Your task to perform on an android device: see sites visited before in the chrome app Image 0: 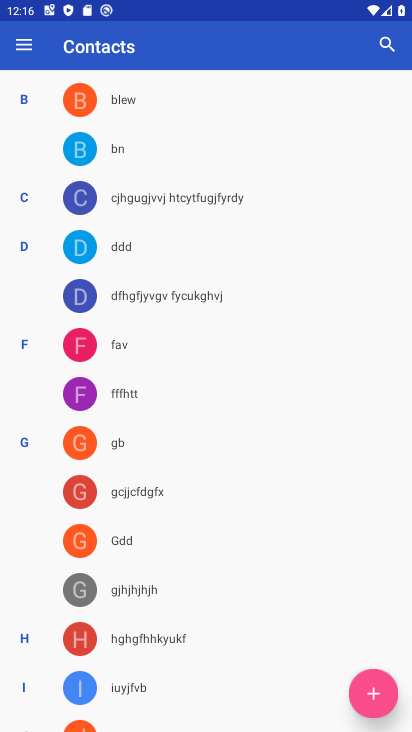
Step 0: press home button
Your task to perform on an android device: see sites visited before in the chrome app Image 1: 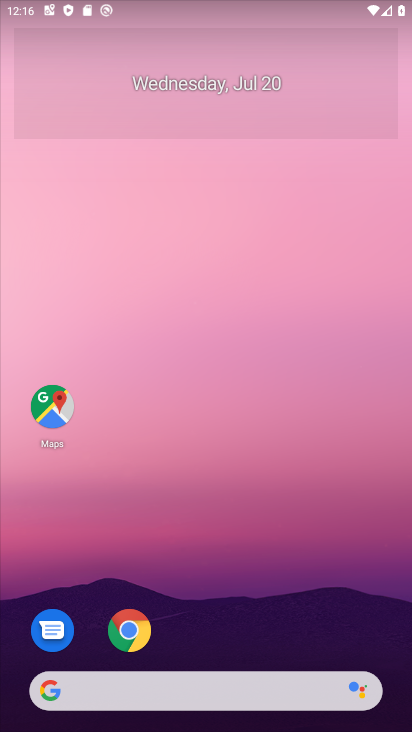
Step 1: click (130, 634)
Your task to perform on an android device: see sites visited before in the chrome app Image 2: 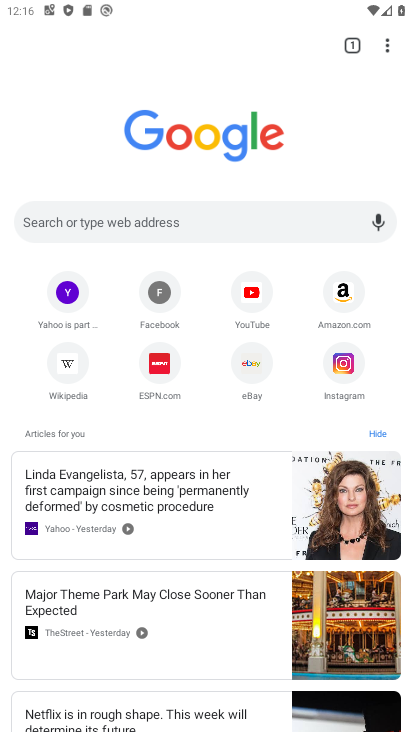
Step 2: click (385, 48)
Your task to perform on an android device: see sites visited before in the chrome app Image 3: 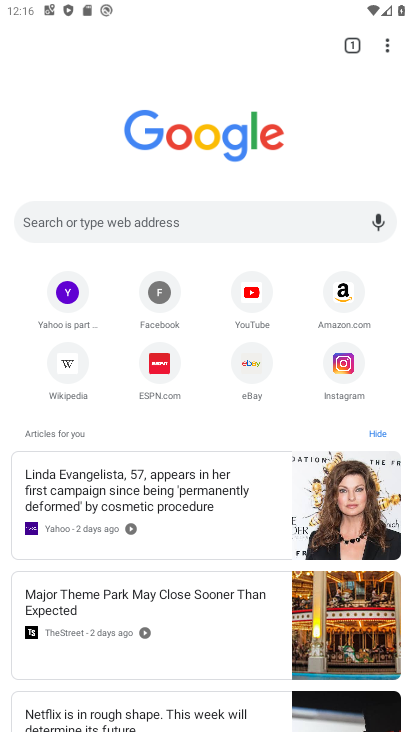
Step 3: task complete